Your task to perform on an android device: Search for seafood restaurants on Google Maps Image 0: 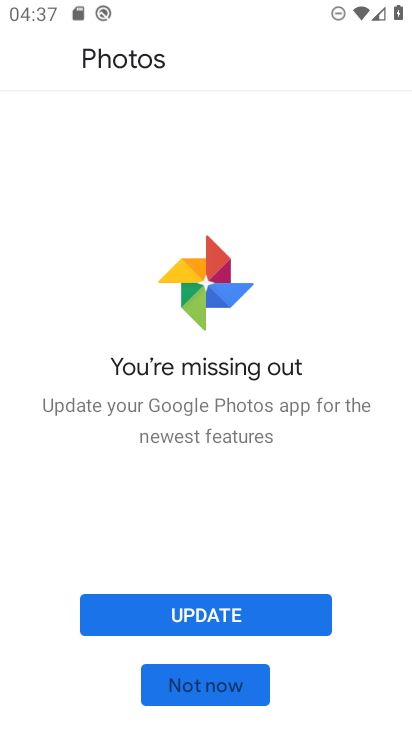
Step 0: press home button
Your task to perform on an android device: Search for seafood restaurants on Google Maps Image 1: 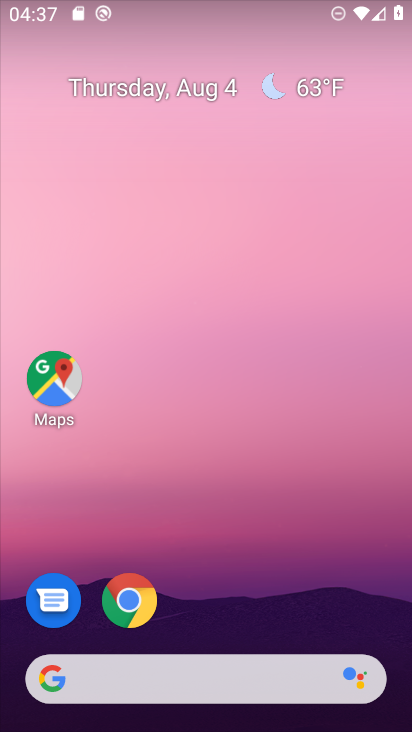
Step 1: drag from (254, 507) to (262, 22)
Your task to perform on an android device: Search for seafood restaurants on Google Maps Image 2: 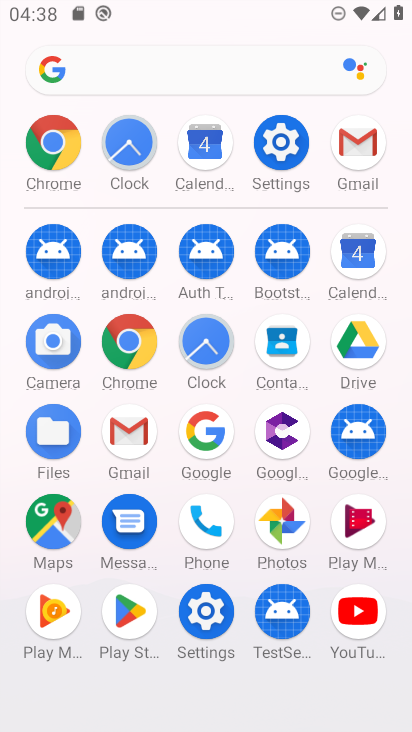
Step 2: click (54, 516)
Your task to perform on an android device: Search for seafood restaurants on Google Maps Image 3: 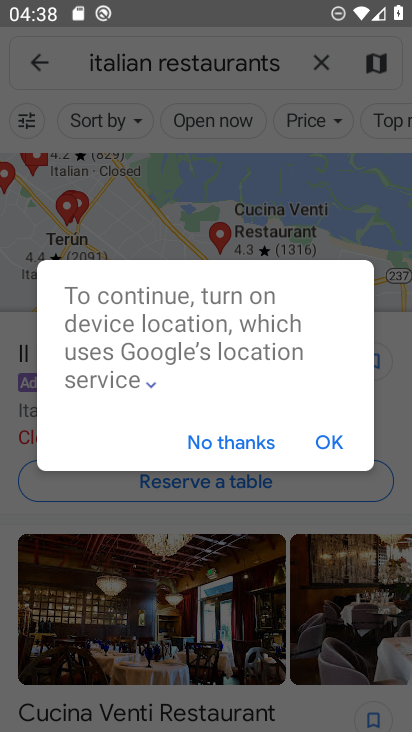
Step 3: click (226, 442)
Your task to perform on an android device: Search for seafood restaurants on Google Maps Image 4: 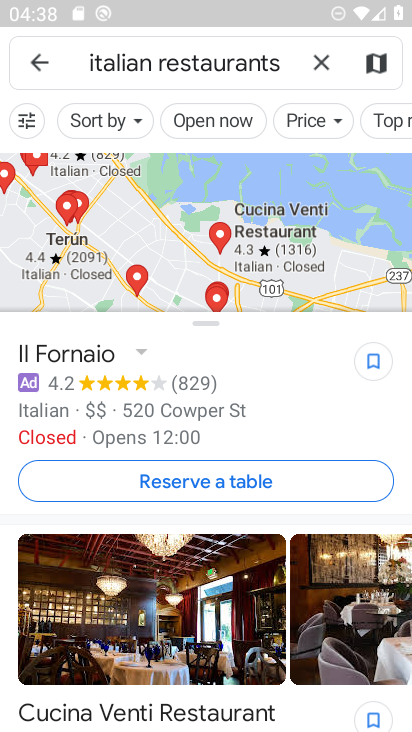
Step 4: click (285, 71)
Your task to perform on an android device: Search for seafood restaurants on Google Maps Image 5: 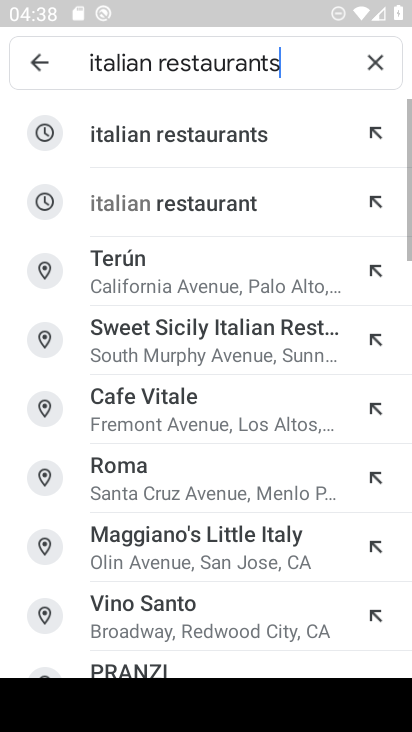
Step 5: click (389, 62)
Your task to perform on an android device: Search for seafood restaurants on Google Maps Image 6: 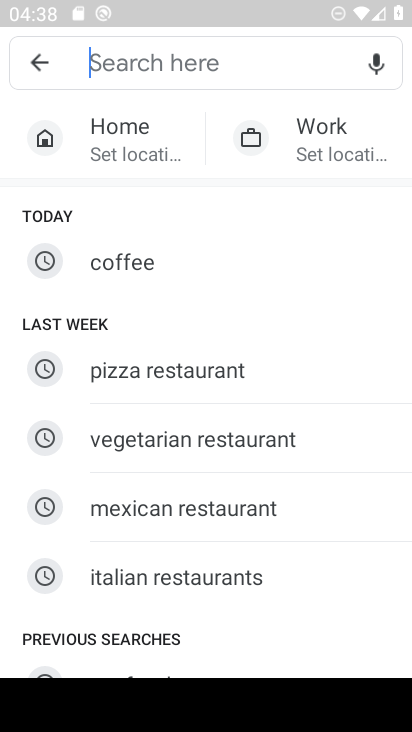
Step 6: type "seafood restaurants"
Your task to perform on an android device: Search for seafood restaurants on Google Maps Image 7: 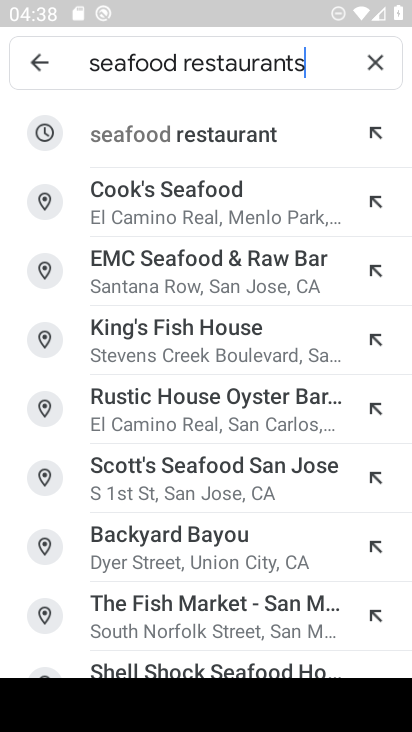
Step 7: press enter
Your task to perform on an android device: Search for seafood restaurants on Google Maps Image 8: 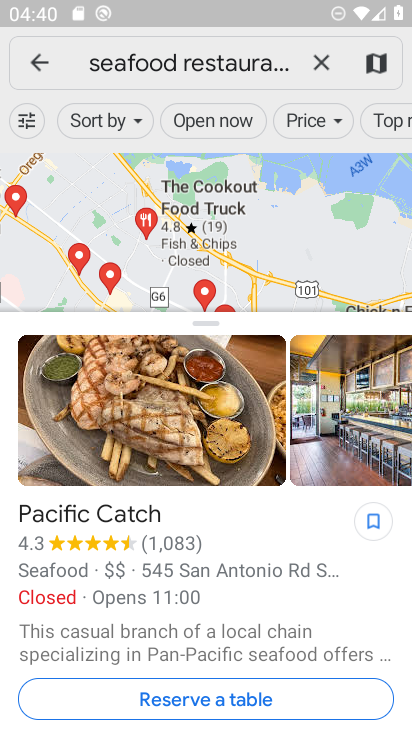
Step 8: task complete